Your task to perform on an android device: Open maps Image 0: 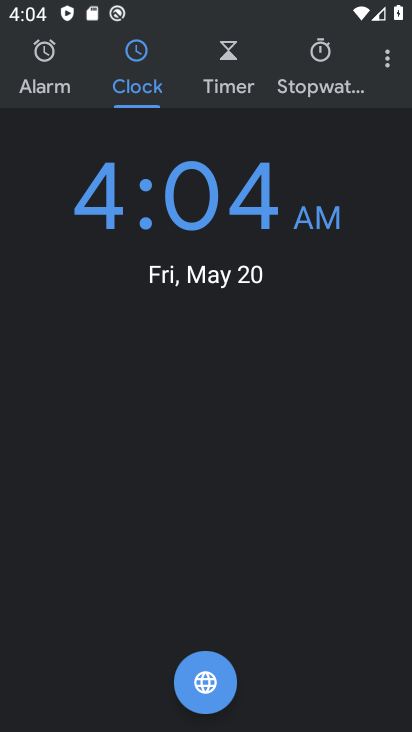
Step 0: press back button
Your task to perform on an android device: Open maps Image 1: 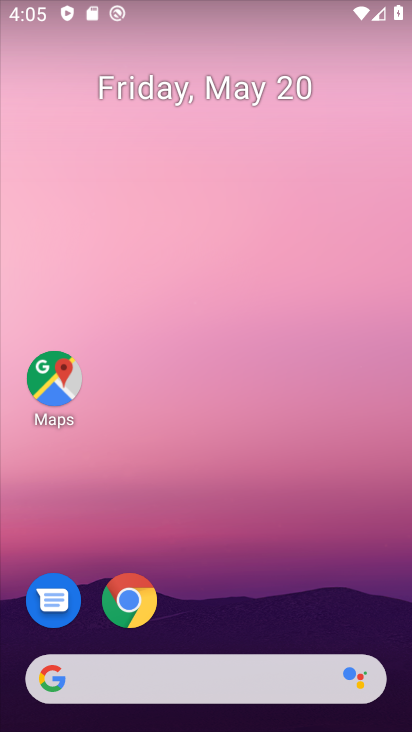
Step 1: drag from (209, 552) to (188, 1)
Your task to perform on an android device: Open maps Image 2: 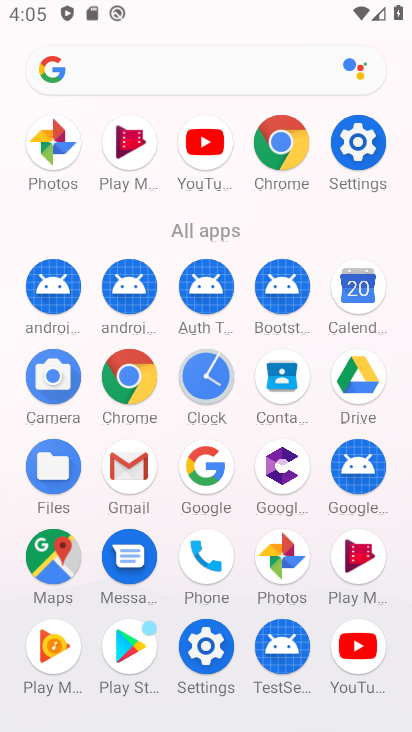
Step 2: drag from (13, 542) to (18, 270)
Your task to perform on an android device: Open maps Image 3: 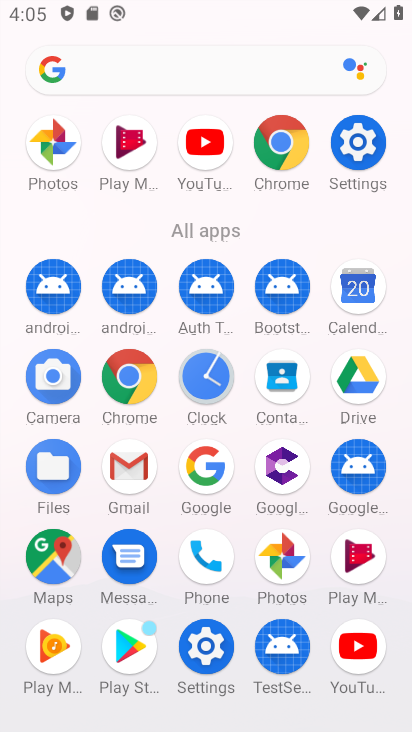
Step 3: click (55, 555)
Your task to perform on an android device: Open maps Image 4: 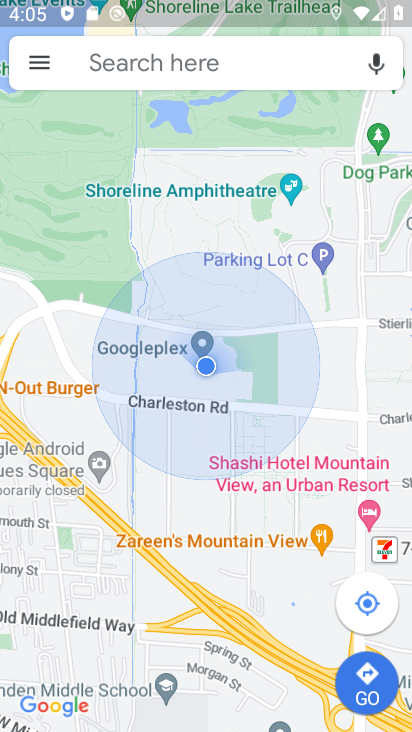
Step 4: task complete